Your task to perform on an android device: check google app version Image 0: 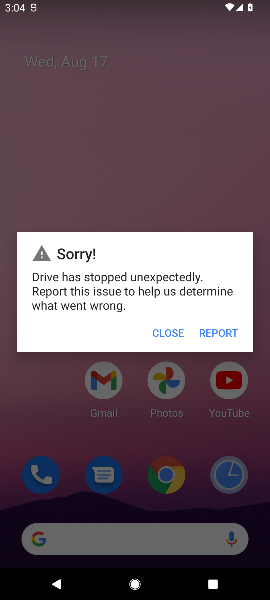
Step 0: click (164, 333)
Your task to perform on an android device: check google app version Image 1: 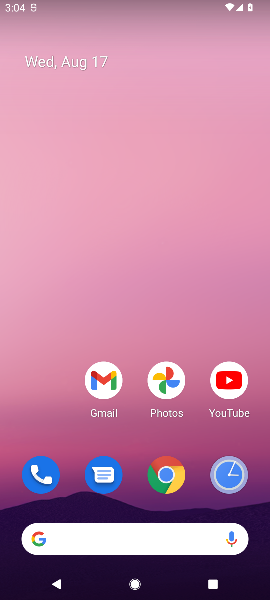
Step 1: drag from (137, 512) to (97, 11)
Your task to perform on an android device: check google app version Image 2: 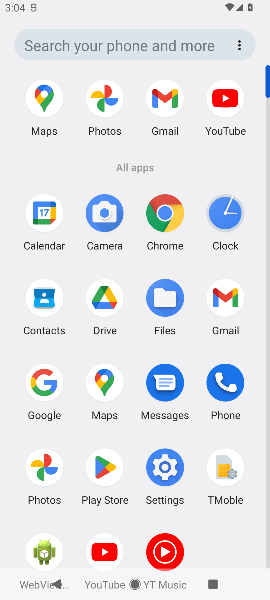
Step 2: click (43, 374)
Your task to perform on an android device: check google app version Image 3: 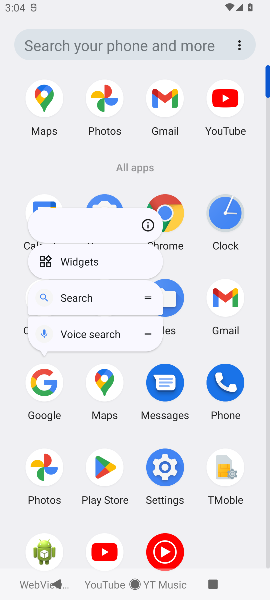
Step 3: click (150, 222)
Your task to perform on an android device: check google app version Image 4: 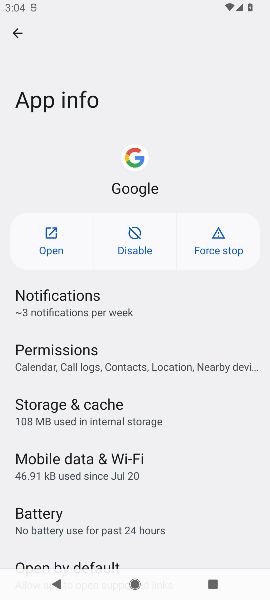
Step 4: task complete